Your task to perform on an android device: turn on priority inbox in the gmail app Image 0: 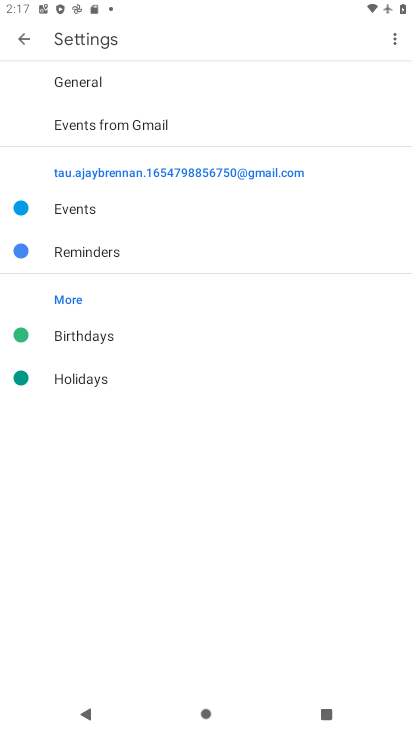
Step 0: press home button
Your task to perform on an android device: turn on priority inbox in the gmail app Image 1: 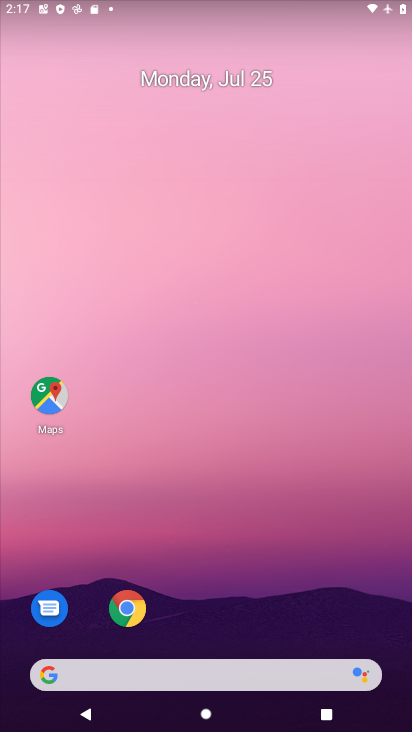
Step 1: drag from (266, 627) to (280, 191)
Your task to perform on an android device: turn on priority inbox in the gmail app Image 2: 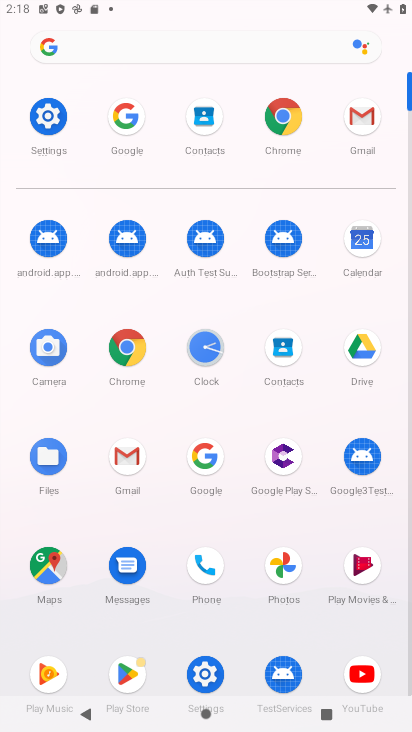
Step 2: click (125, 472)
Your task to perform on an android device: turn on priority inbox in the gmail app Image 3: 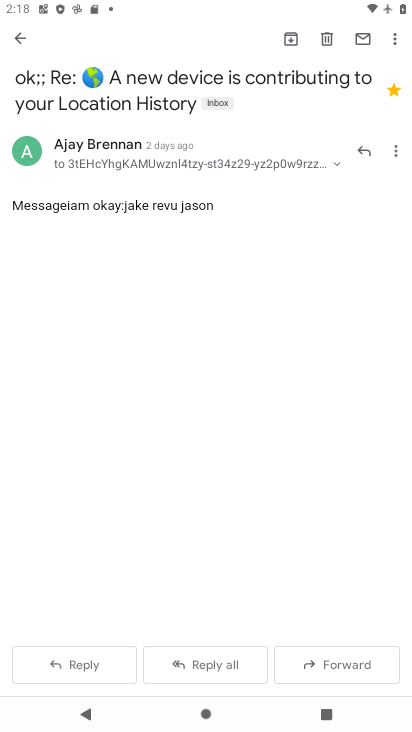
Step 3: click (14, 36)
Your task to perform on an android device: turn on priority inbox in the gmail app Image 4: 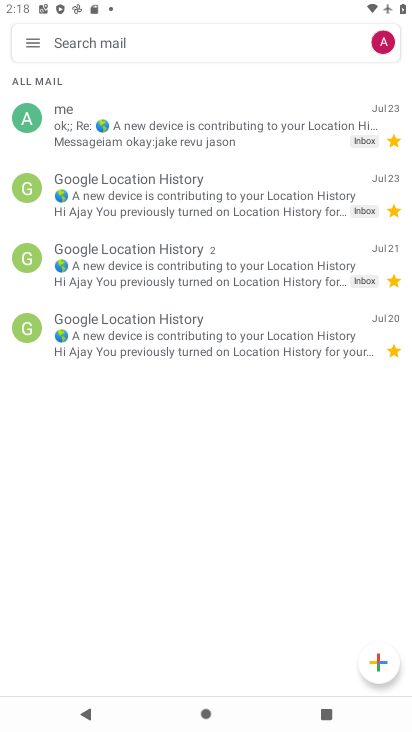
Step 4: click (33, 42)
Your task to perform on an android device: turn on priority inbox in the gmail app Image 5: 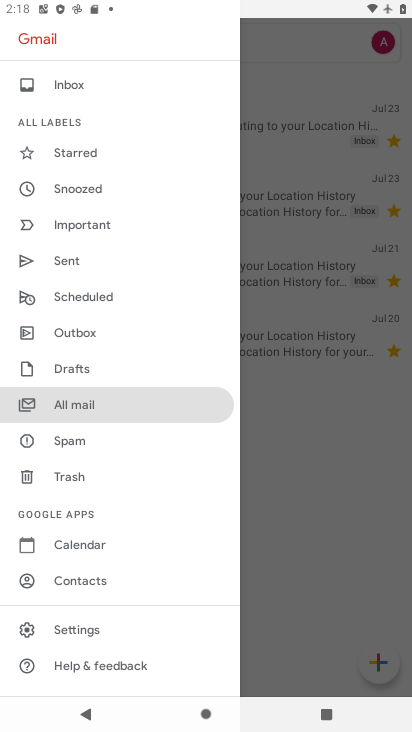
Step 5: click (99, 635)
Your task to perform on an android device: turn on priority inbox in the gmail app Image 6: 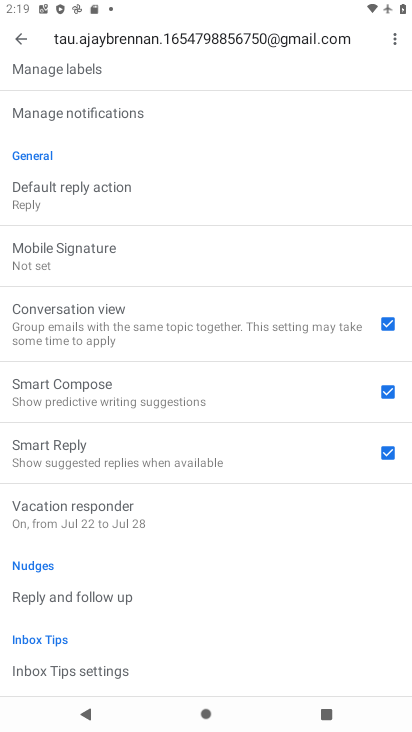
Step 6: drag from (112, 153) to (109, 412)
Your task to perform on an android device: turn on priority inbox in the gmail app Image 7: 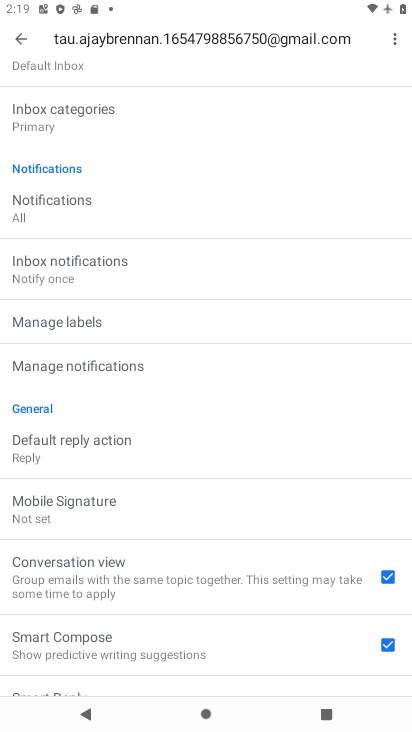
Step 7: click (84, 118)
Your task to perform on an android device: turn on priority inbox in the gmail app Image 8: 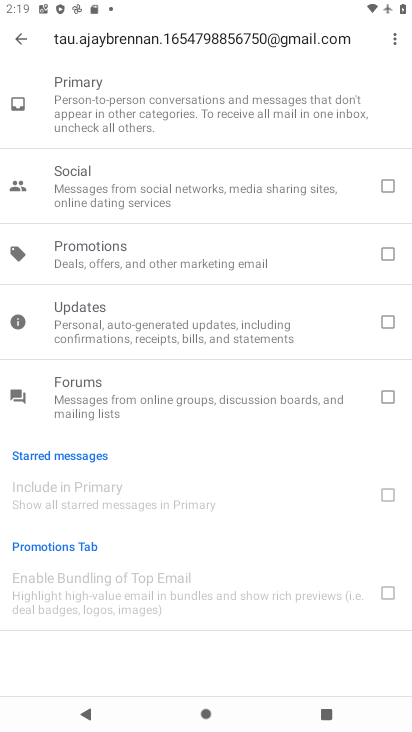
Step 8: click (27, 33)
Your task to perform on an android device: turn on priority inbox in the gmail app Image 9: 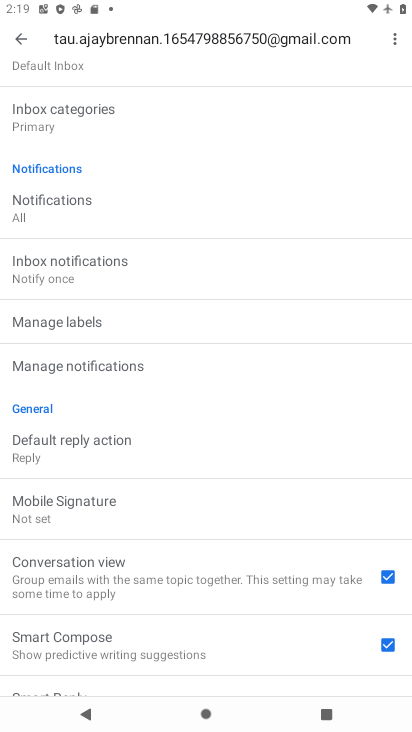
Step 9: drag from (161, 229) to (97, 696)
Your task to perform on an android device: turn on priority inbox in the gmail app Image 10: 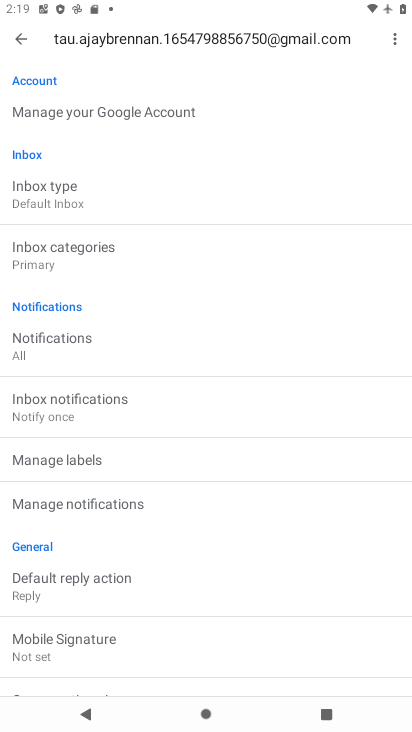
Step 10: click (61, 202)
Your task to perform on an android device: turn on priority inbox in the gmail app Image 11: 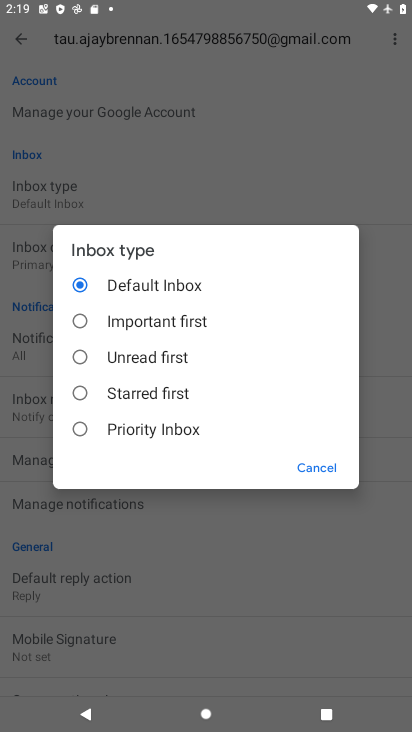
Step 11: click (78, 430)
Your task to perform on an android device: turn on priority inbox in the gmail app Image 12: 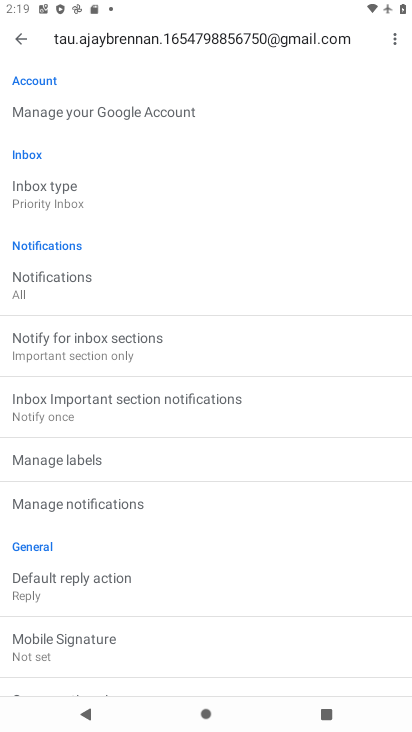
Step 12: task complete